Your task to perform on an android device: toggle wifi Image 0: 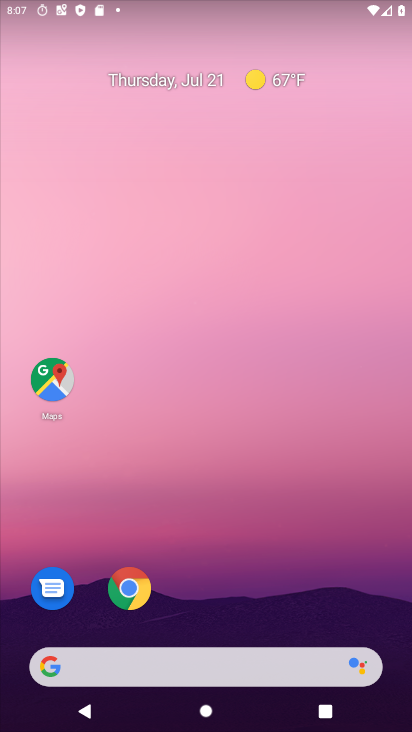
Step 0: drag from (208, 531) to (208, 191)
Your task to perform on an android device: toggle wifi Image 1: 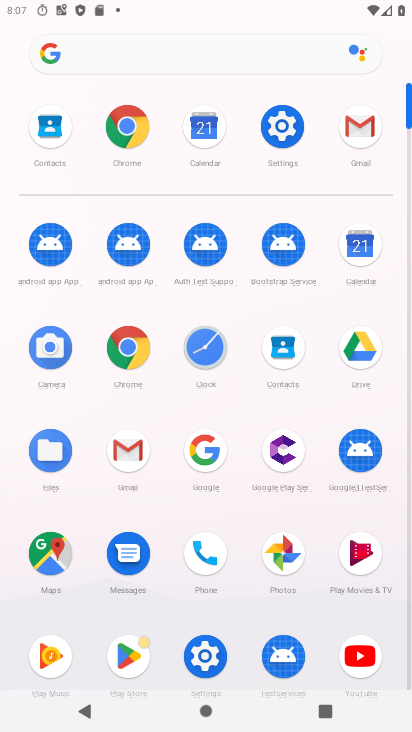
Step 1: click (275, 134)
Your task to perform on an android device: toggle wifi Image 2: 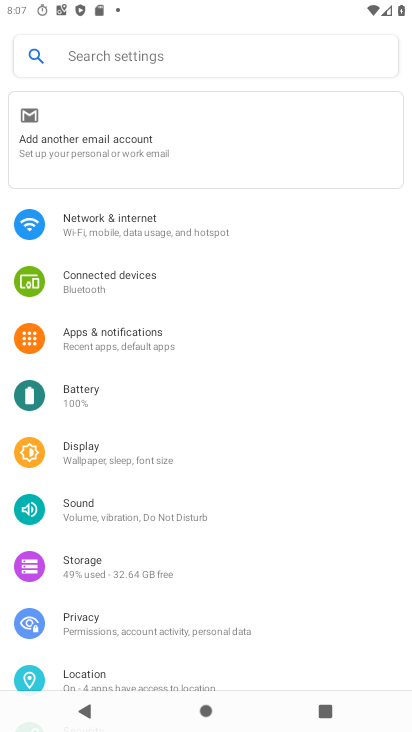
Step 2: click (105, 225)
Your task to perform on an android device: toggle wifi Image 3: 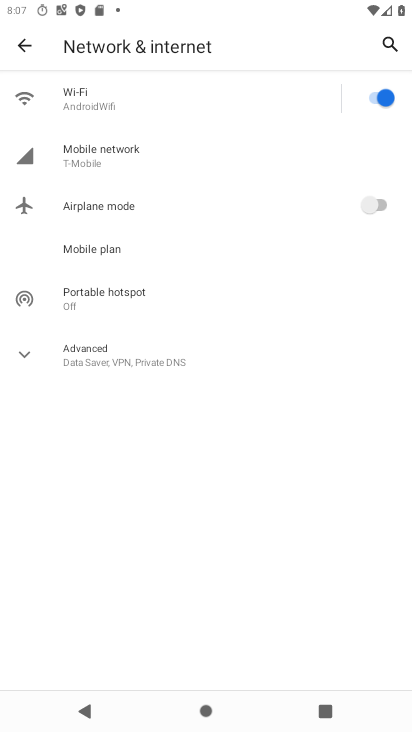
Step 3: click (371, 97)
Your task to perform on an android device: toggle wifi Image 4: 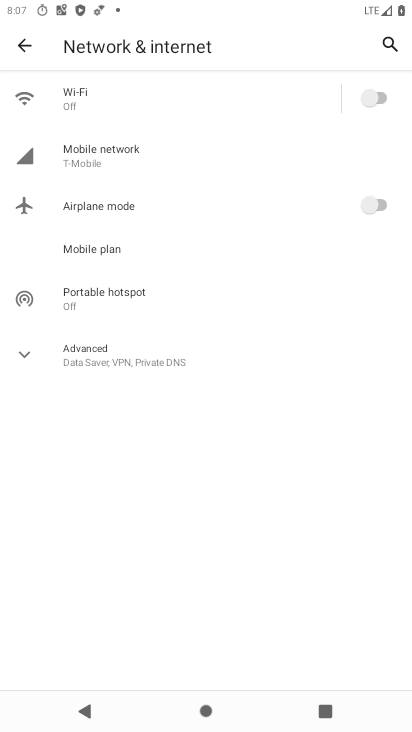
Step 4: task complete